Your task to perform on an android device: toggle translation in the chrome app Image 0: 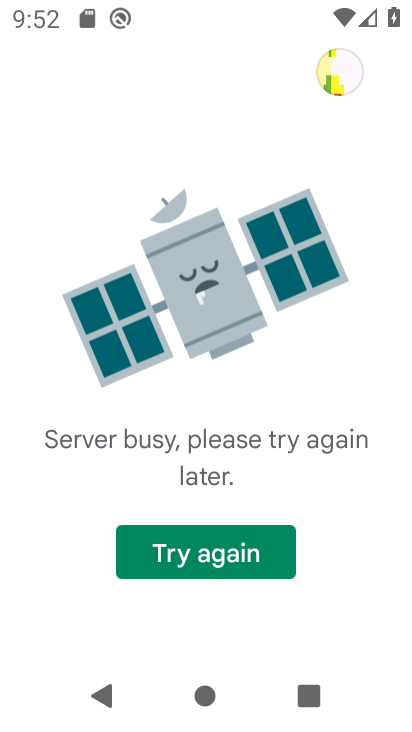
Step 0: press back button
Your task to perform on an android device: toggle translation in the chrome app Image 1: 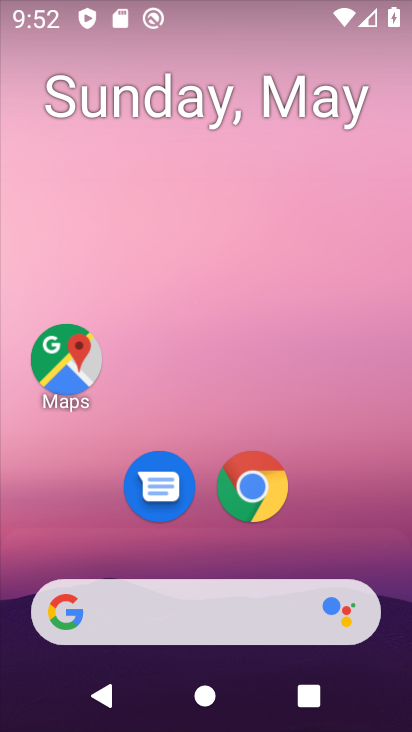
Step 1: click (248, 489)
Your task to perform on an android device: toggle translation in the chrome app Image 2: 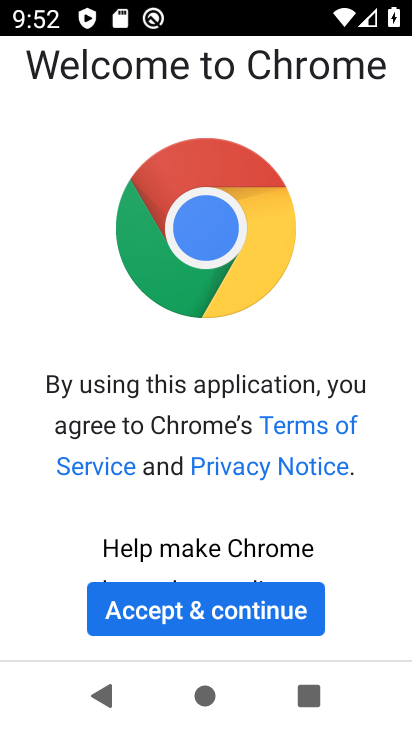
Step 2: click (222, 603)
Your task to perform on an android device: toggle translation in the chrome app Image 3: 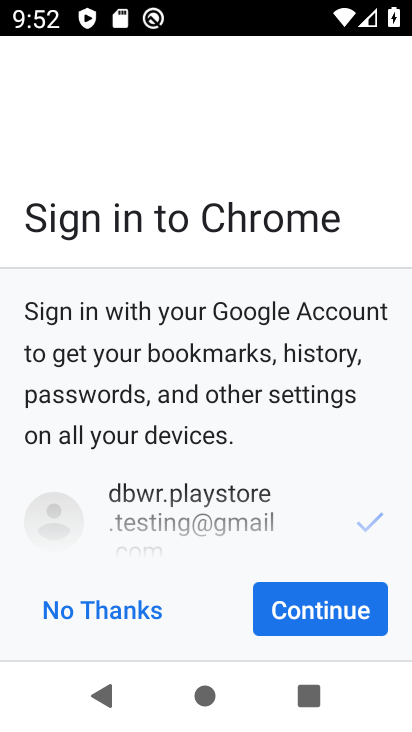
Step 3: click (330, 611)
Your task to perform on an android device: toggle translation in the chrome app Image 4: 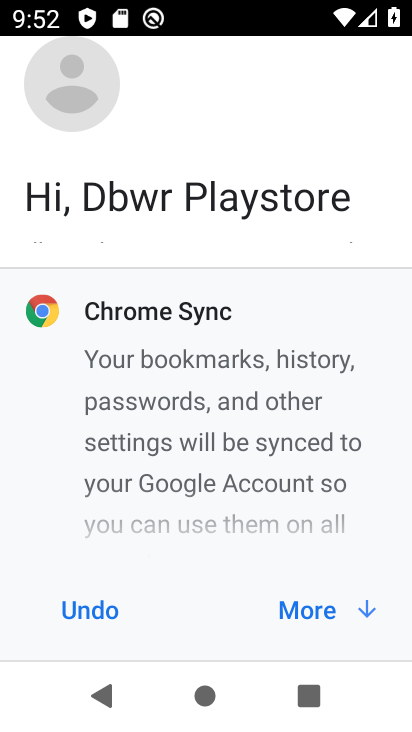
Step 4: click (321, 611)
Your task to perform on an android device: toggle translation in the chrome app Image 5: 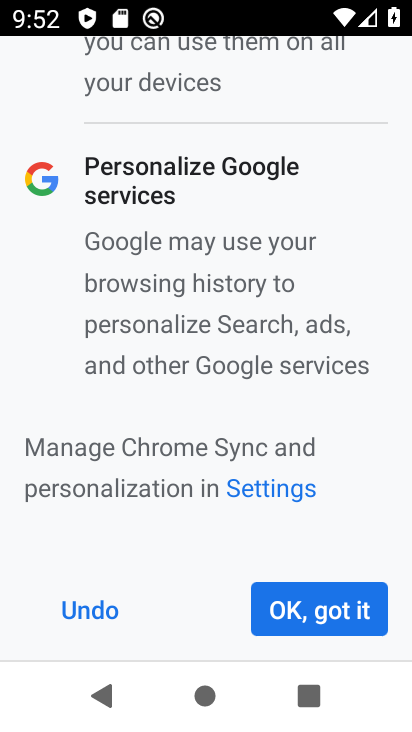
Step 5: click (321, 611)
Your task to perform on an android device: toggle translation in the chrome app Image 6: 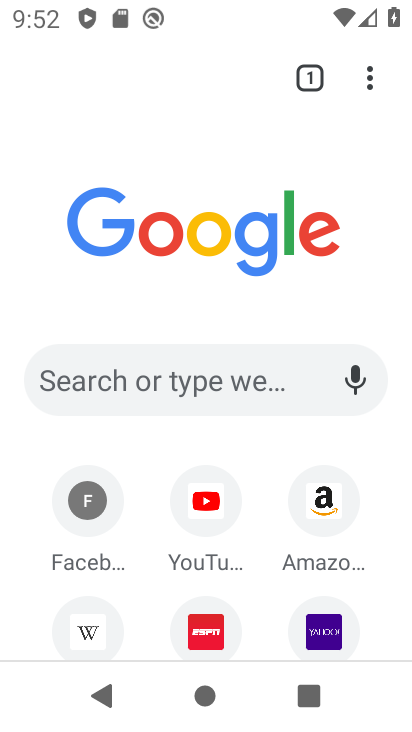
Step 6: click (371, 75)
Your task to perform on an android device: toggle translation in the chrome app Image 7: 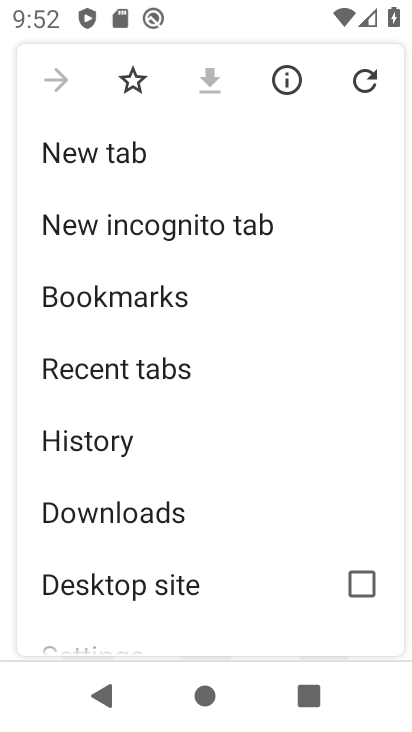
Step 7: drag from (212, 526) to (252, 427)
Your task to perform on an android device: toggle translation in the chrome app Image 8: 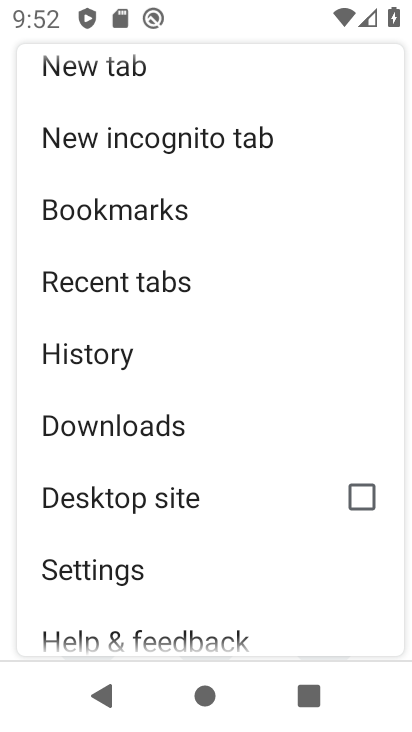
Step 8: drag from (178, 528) to (244, 439)
Your task to perform on an android device: toggle translation in the chrome app Image 9: 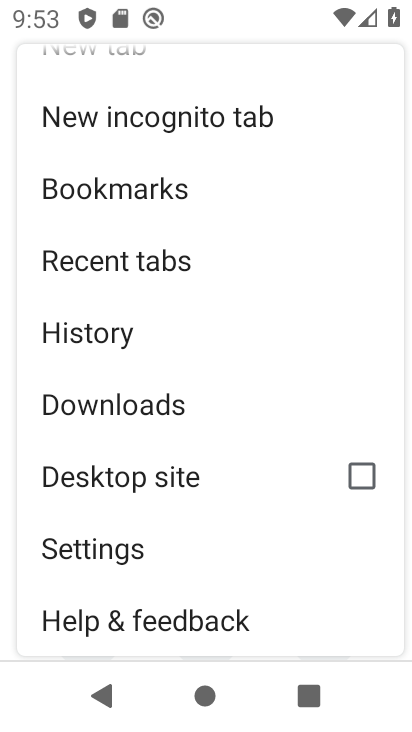
Step 9: click (109, 548)
Your task to perform on an android device: toggle translation in the chrome app Image 10: 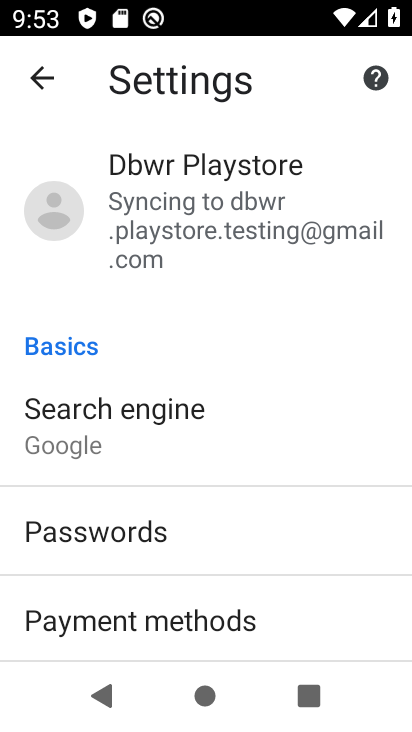
Step 10: drag from (174, 564) to (208, 468)
Your task to perform on an android device: toggle translation in the chrome app Image 11: 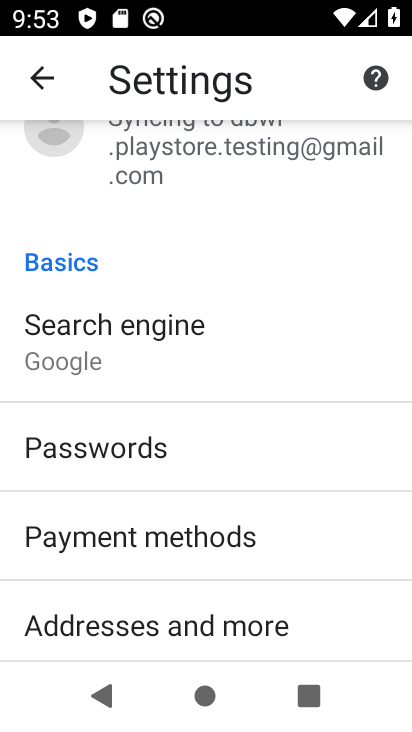
Step 11: drag from (169, 607) to (190, 501)
Your task to perform on an android device: toggle translation in the chrome app Image 12: 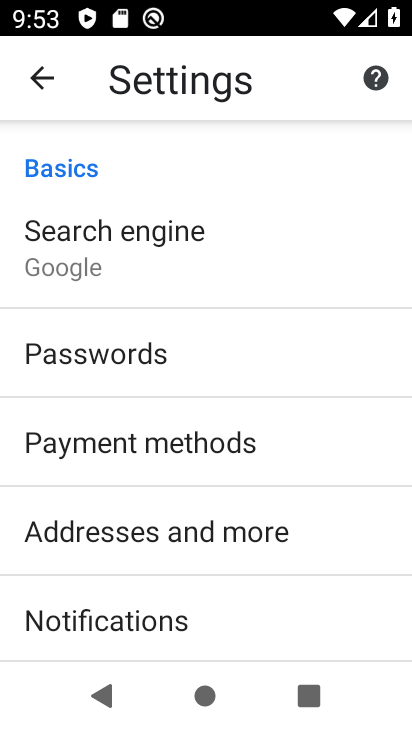
Step 12: drag from (127, 589) to (152, 479)
Your task to perform on an android device: toggle translation in the chrome app Image 13: 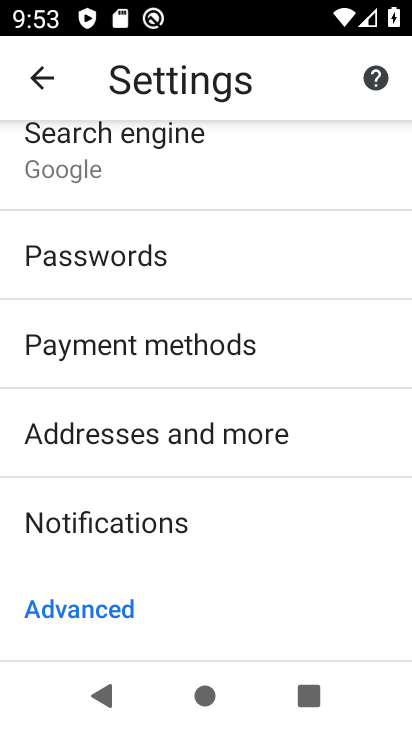
Step 13: drag from (88, 564) to (144, 477)
Your task to perform on an android device: toggle translation in the chrome app Image 14: 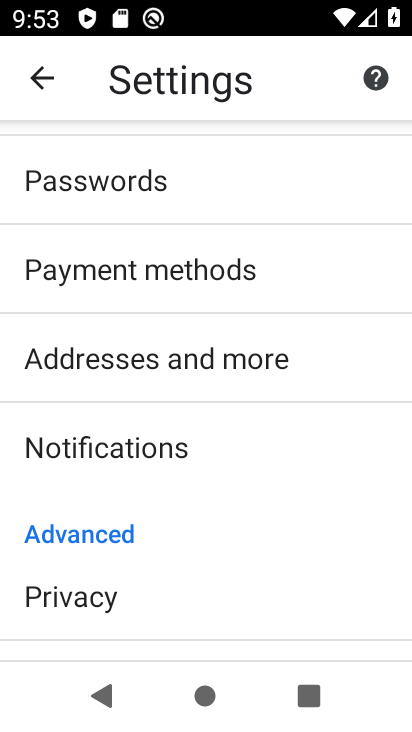
Step 14: drag from (101, 577) to (153, 495)
Your task to perform on an android device: toggle translation in the chrome app Image 15: 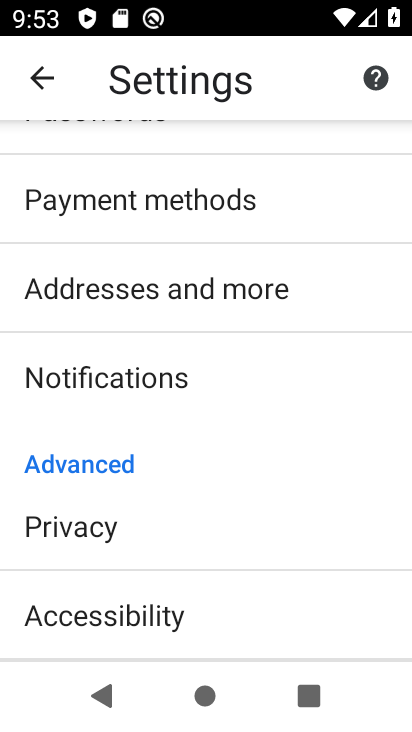
Step 15: drag from (99, 585) to (177, 484)
Your task to perform on an android device: toggle translation in the chrome app Image 16: 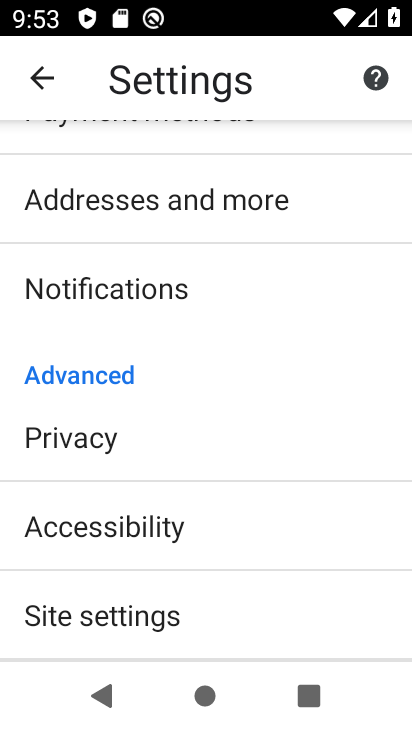
Step 16: drag from (91, 577) to (131, 478)
Your task to perform on an android device: toggle translation in the chrome app Image 17: 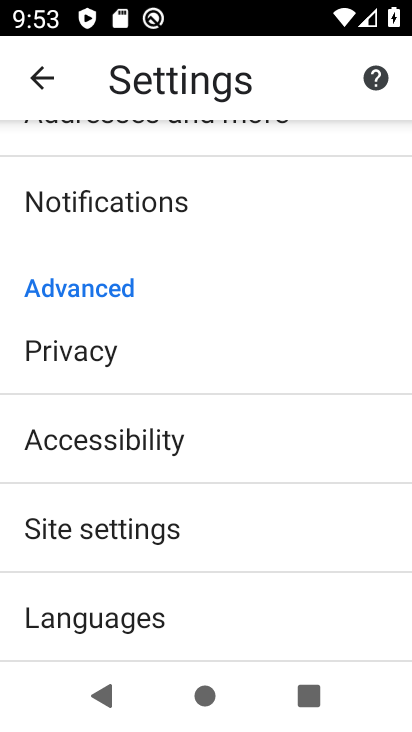
Step 17: drag from (95, 599) to (148, 498)
Your task to perform on an android device: toggle translation in the chrome app Image 18: 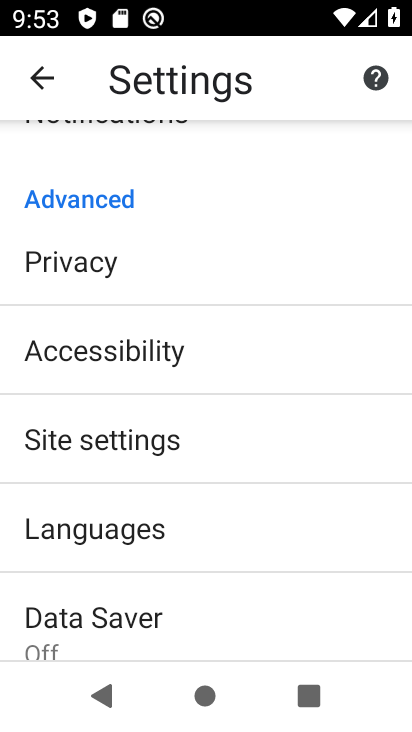
Step 18: click (103, 528)
Your task to perform on an android device: toggle translation in the chrome app Image 19: 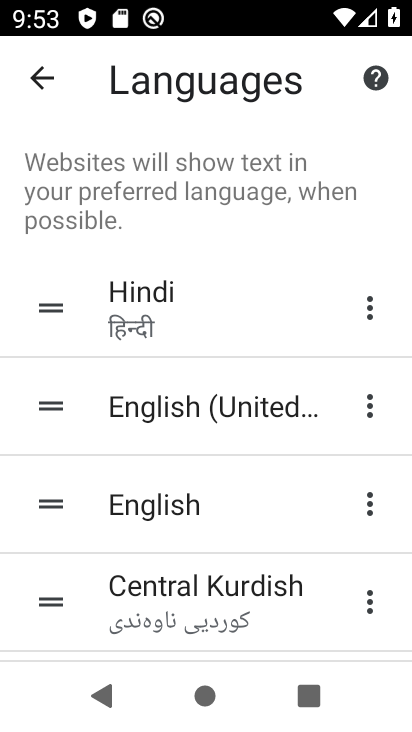
Step 19: drag from (216, 606) to (256, 466)
Your task to perform on an android device: toggle translation in the chrome app Image 20: 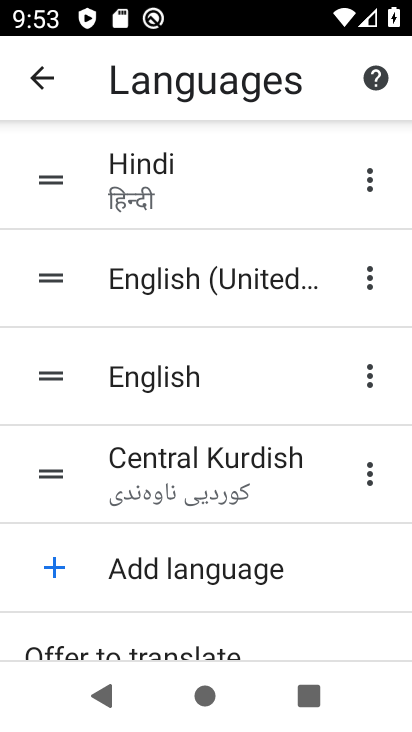
Step 20: drag from (226, 617) to (264, 480)
Your task to perform on an android device: toggle translation in the chrome app Image 21: 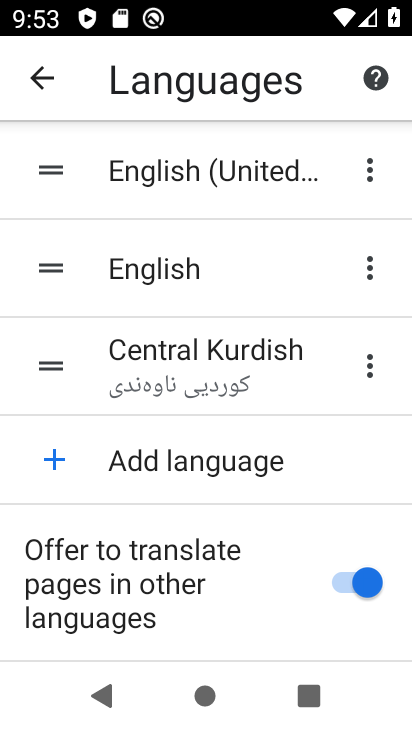
Step 21: click (342, 583)
Your task to perform on an android device: toggle translation in the chrome app Image 22: 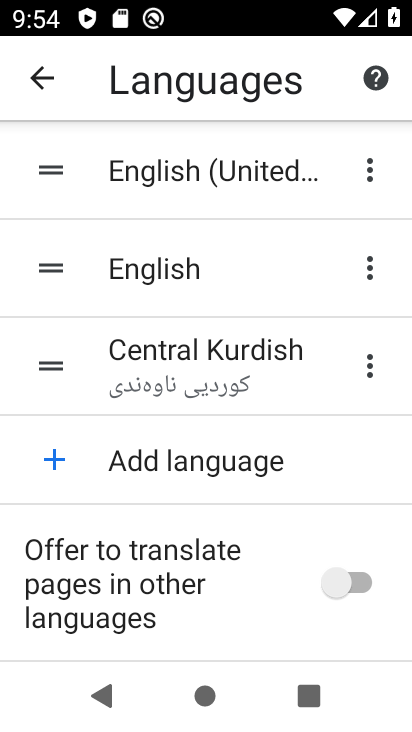
Step 22: task complete